Your task to perform on an android device: Do I have any events tomorrow? Image 0: 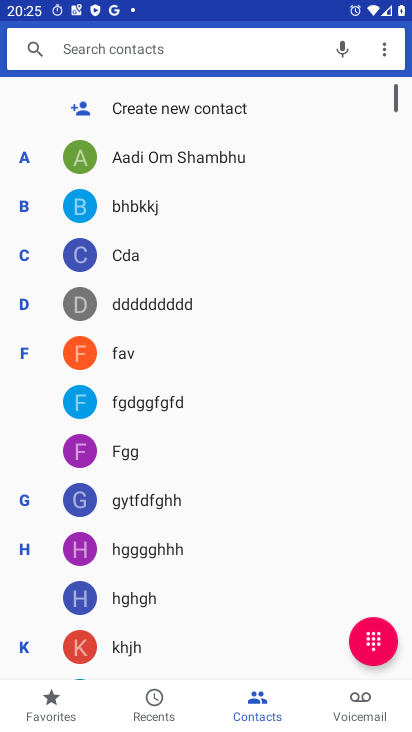
Step 0: press home button
Your task to perform on an android device: Do I have any events tomorrow? Image 1: 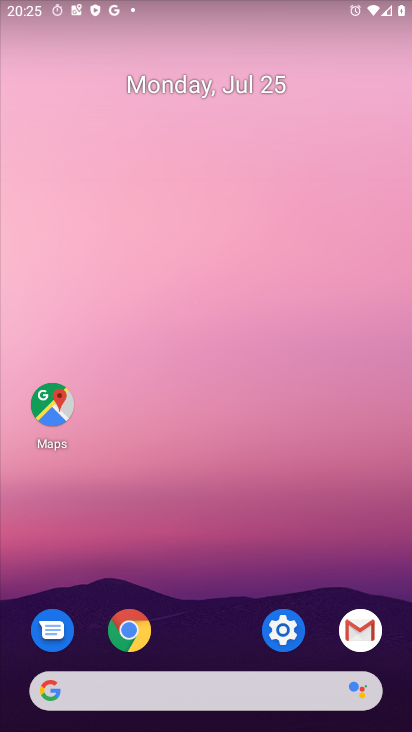
Step 1: drag from (233, 722) to (193, 233)
Your task to perform on an android device: Do I have any events tomorrow? Image 2: 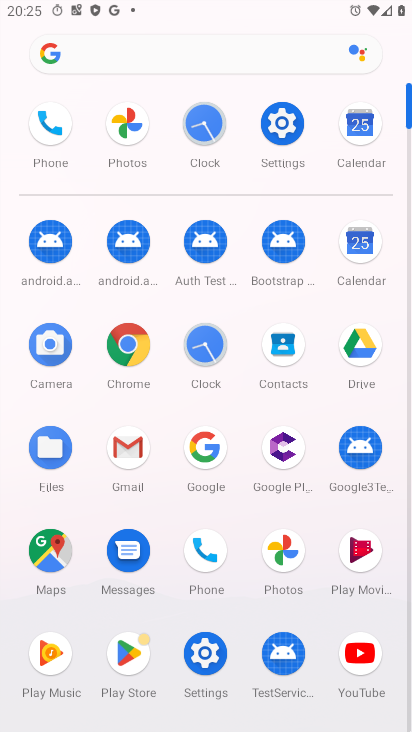
Step 2: click (360, 243)
Your task to perform on an android device: Do I have any events tomorrow? Image 3: 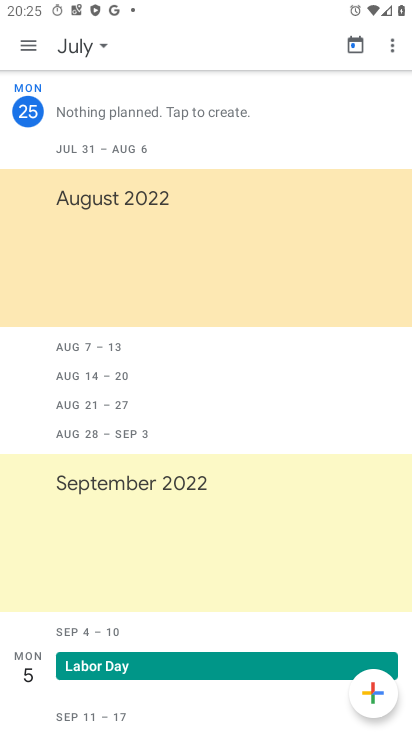
Step 3: click (35, 55)
Your task to perform on an android device: Do I have any events tomorrow? Image 4: 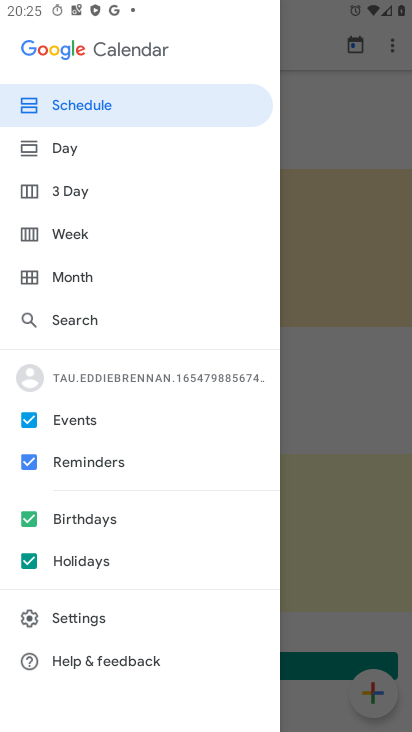
Step 4: click (75, 272)
Your task to perform on an android device: Do I have any events tomorrow? Image 5: 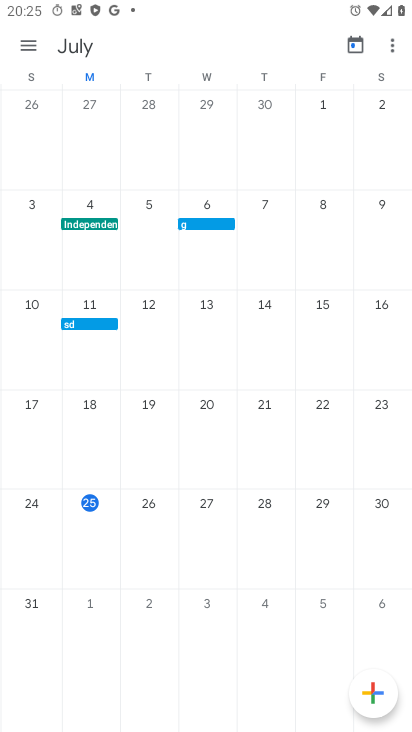
Step 5: click (157, 512)
Your task to perform on an android device: Do I have any events tomorrow? Image 6: 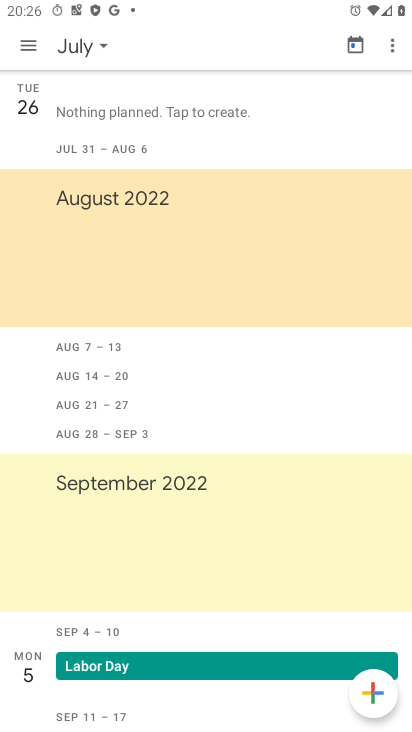
Step 6: task complete